Your task to perform on an android device: Toggle the flashlight Image 0: 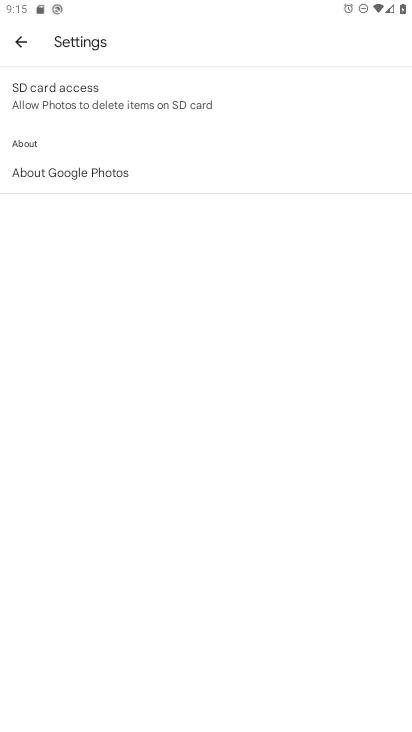
Step 0: press home button
Your task to perform on an android device: Toggle the flashlight Image 1: 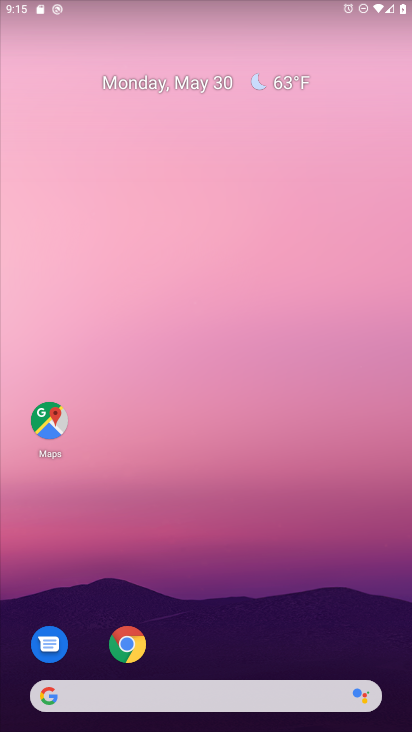
Step 1: drag from (199, 655) to (189, 144)
Your task to perform on an android device: Toggle the flashlight Image 2: 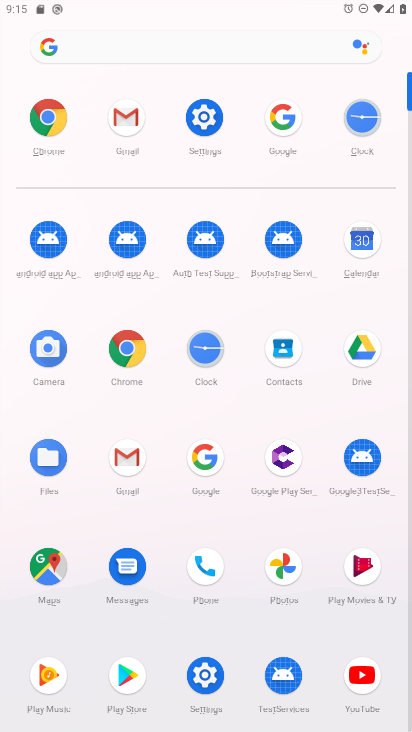
Step 2: click (203, 116)
Your task to perform on an android device: Toggle the flashlight Image 3: 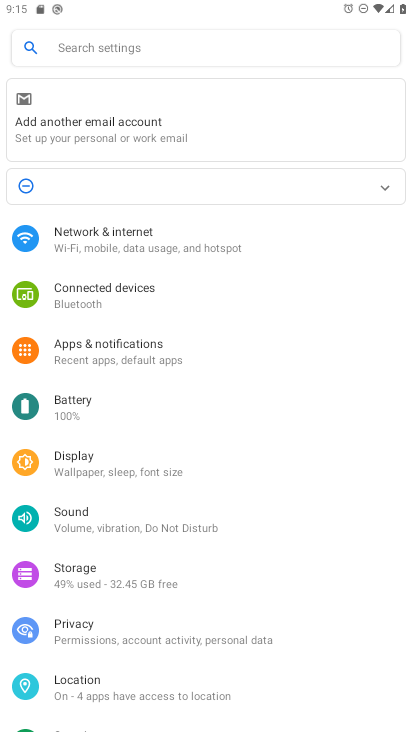
Step 3: click (173, 52)
Your task to perform on an android device: Toggle the flashlight Image 4: 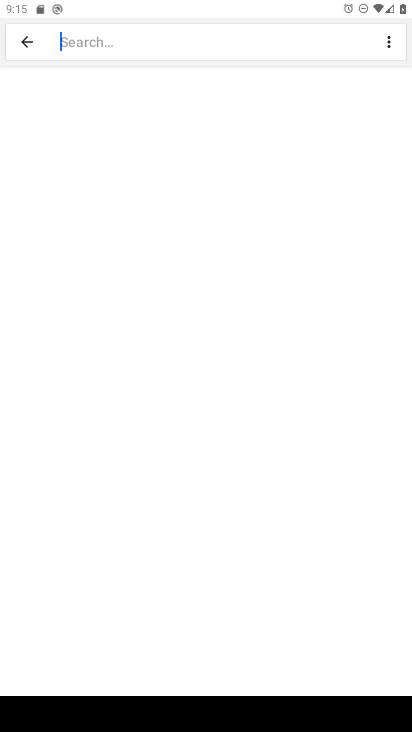
Step 4: type "flash"
Your task to perform on an android device: Toggle the flashlight Image 5: 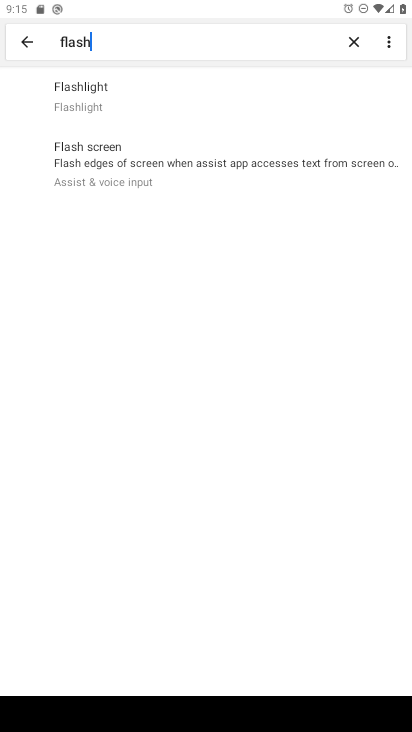
Step 5: task complete